Your task to perform on an android device: change the clock display to show seconds Image 0: 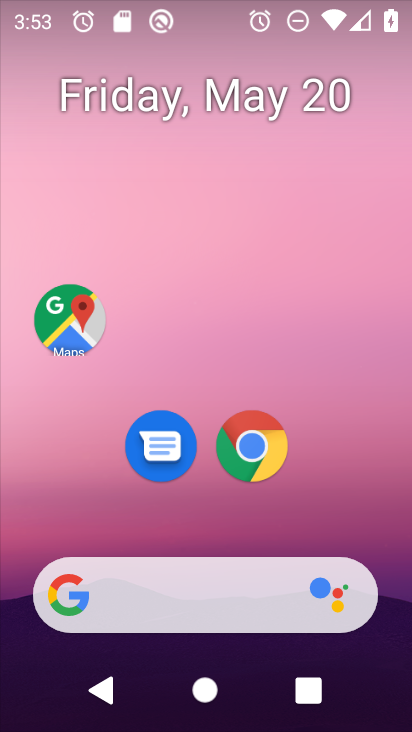
Step 0: drag from (378, 550) to (349, 0)
Your task to perform on an android device: change the clock display to show seconds Image 1: 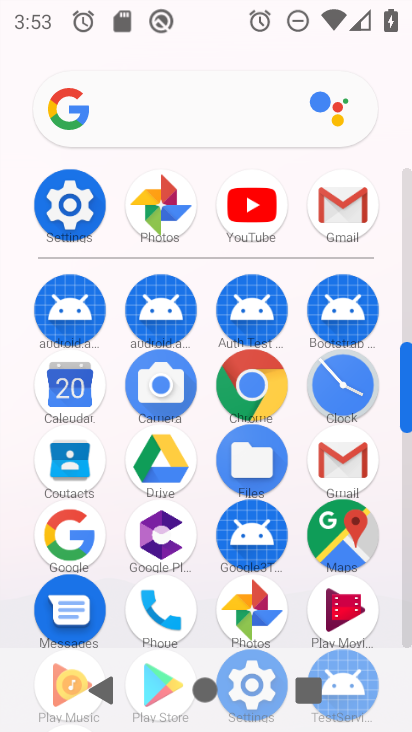
Step 1: click (341, 384)
Your task to perform on an android device: change the clock display to show seconds Image 2: 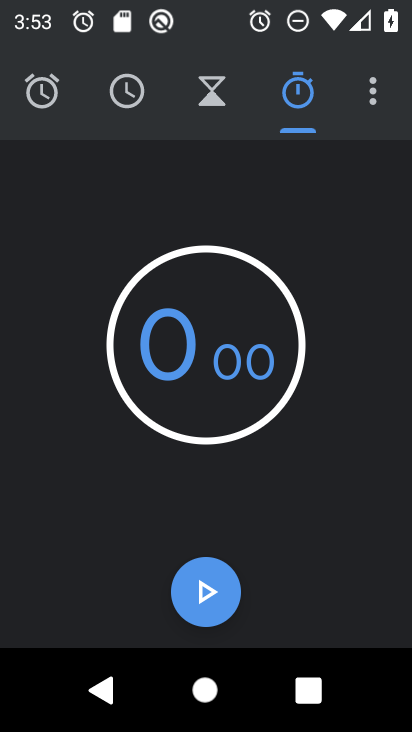
Step 2: click (377, 95)
Your task to perform on an android device: change the clock display to show seconds Image 3: 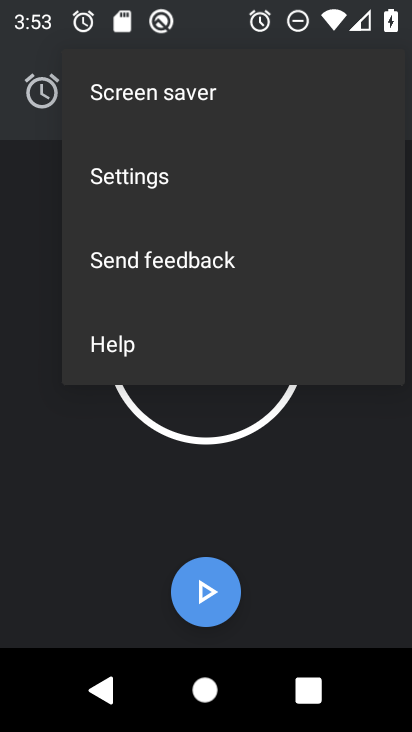
Step 3: click (117, 177)
Your task to perform on an android device: change the clock display to show seconds Image 4: 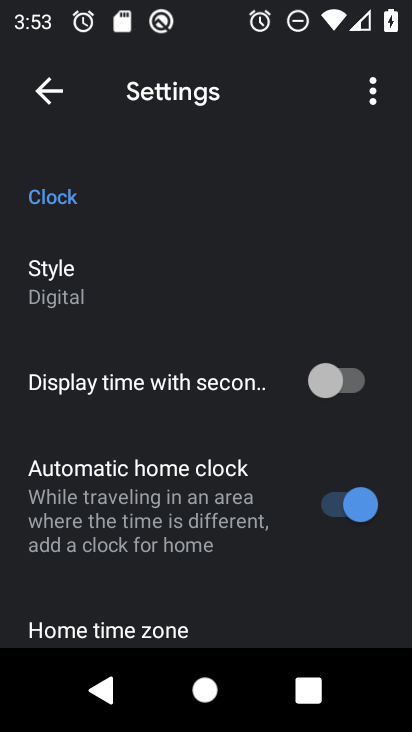
Step 4: click (331, 387)
Your task to perform on an android device: change the clock display to show seconds Image 5: 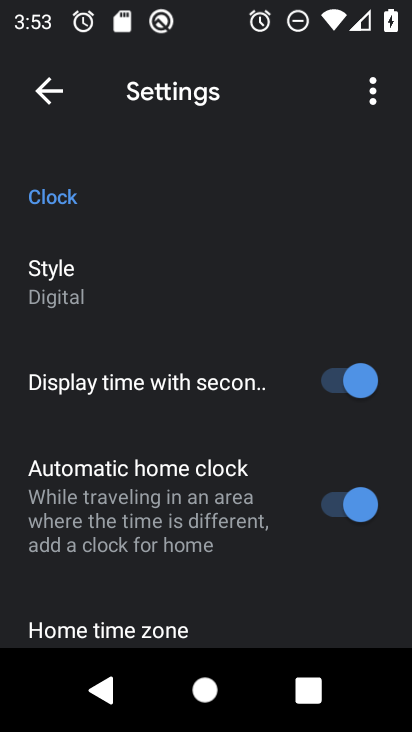
Step 5: task complete